Your task to perform on an android device: Show me productivity apps on the Play Store Image 0: 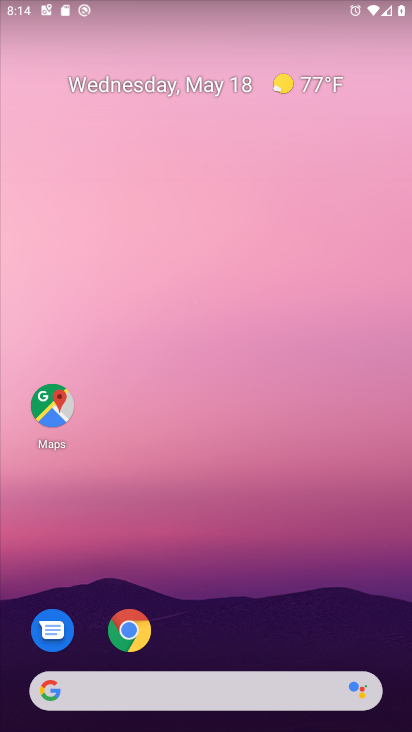
Step 0: drag from (269, 576) to (295, 200)
Your task to perform on an android device: Show me productivity apps on the Play Store Image 1: 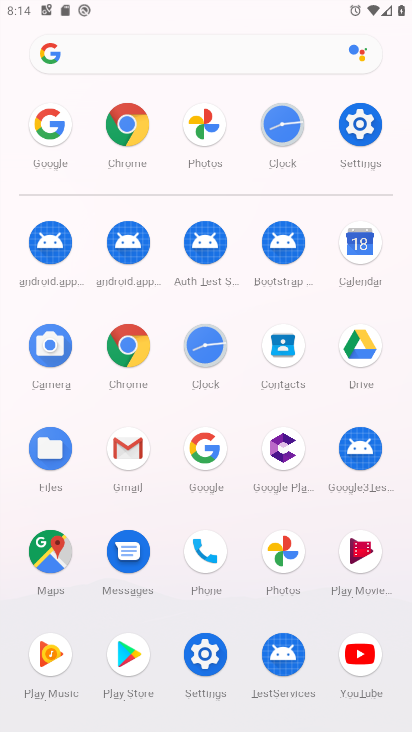
Step 1: drag from (289, 583) to (272, 343)
Your task to perform on an android device: Show me productivity apps on the Play Store Image 2: 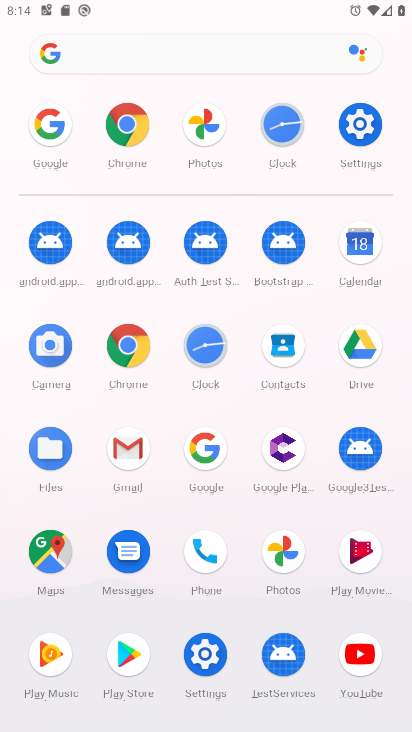
Step 2: click (127, 660)
Your task to perform on an android device: Show me productivity apps on the Play Store Image 3: 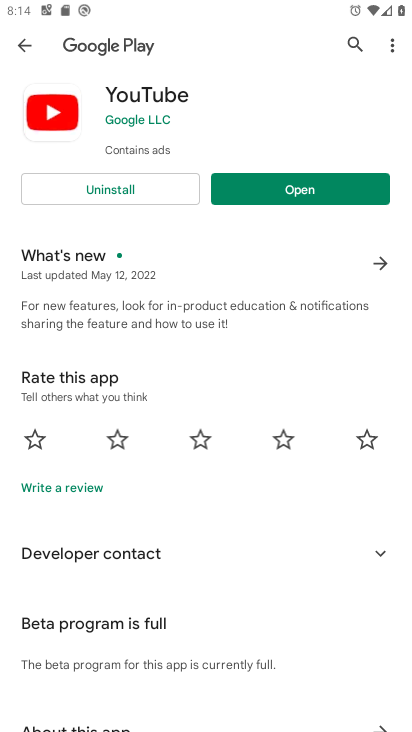
Step 3: press back button
Your task to perform on an android device: Show me productivity apps on the Play Store Image 4: 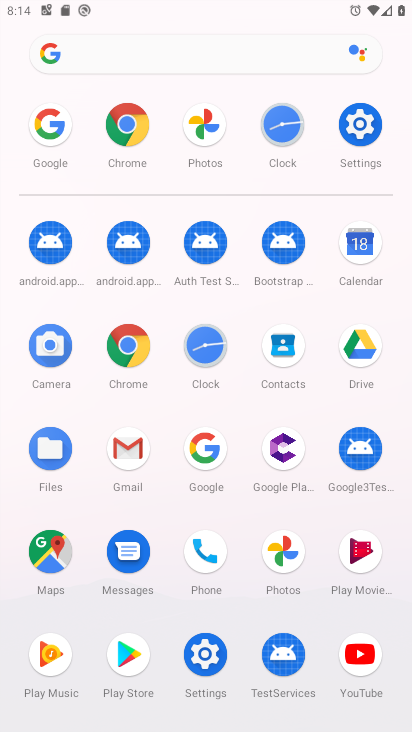
Step 4: click (140, 661)
Your task to perform on an android device: Show me productivity apps on the Play Store Image 5: 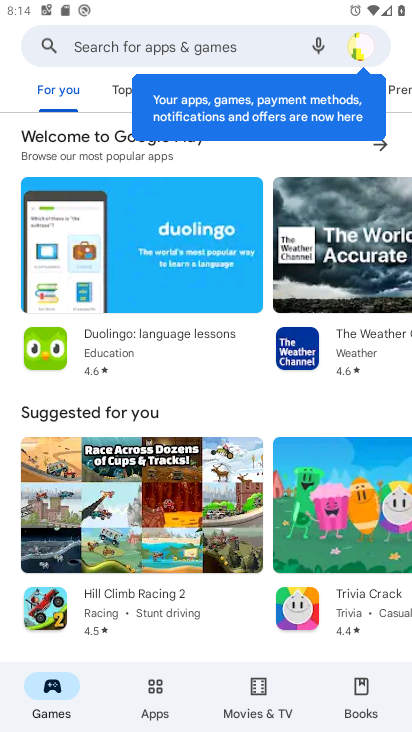
Step 5: click (162, 687)
Your task to perform on an android device: Show me productivity apps on the Play Store Image 6: 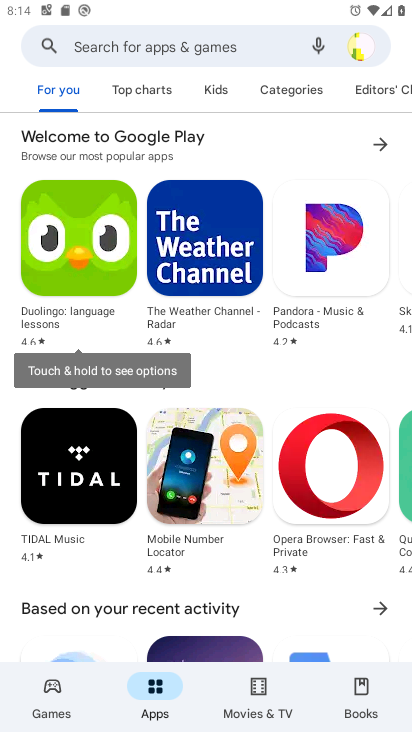
Step 6: drag from (387, 92) to (263, 90)
Your task to perform on an android device: Show me productivity apps on the Play Store Image 7: 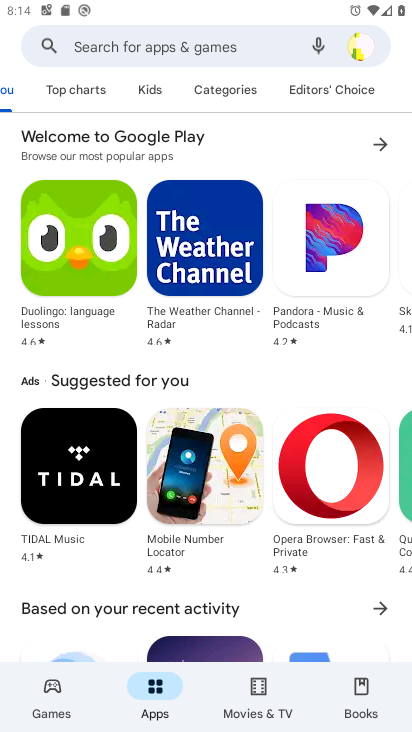
Step 7: click (211, 87)
Your task to perform on an android device: Show me productivity apps on the Play Store Image 8: 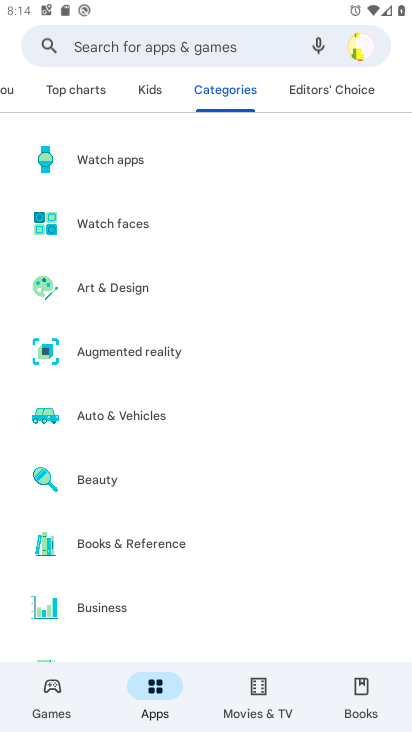
Step 8: drag from (202, 625) to (273, 140)
Your task to perform on an android device: Show me productivity apps on the Play Store Image 9: 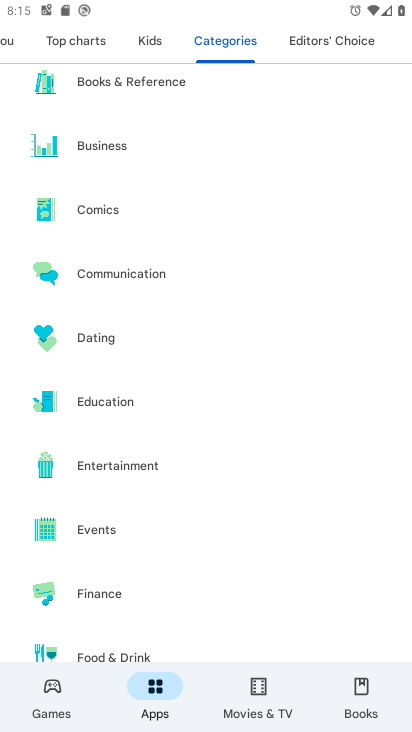
Step 9: drag from (237, 627) to (264, 133)
Your task to perform on an android device: Show me productivity apps on the Play Store Image 10: 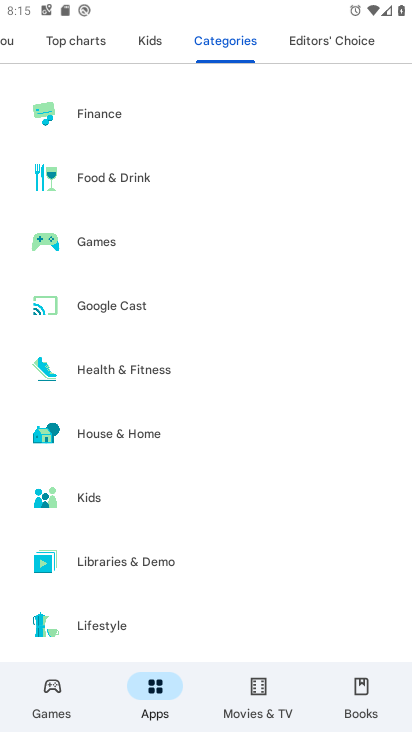
Step 10: drag from (204, 593) to (205, 159)
Your task to perform on an android device: Show me productivity apps on the Play Store Image 11: 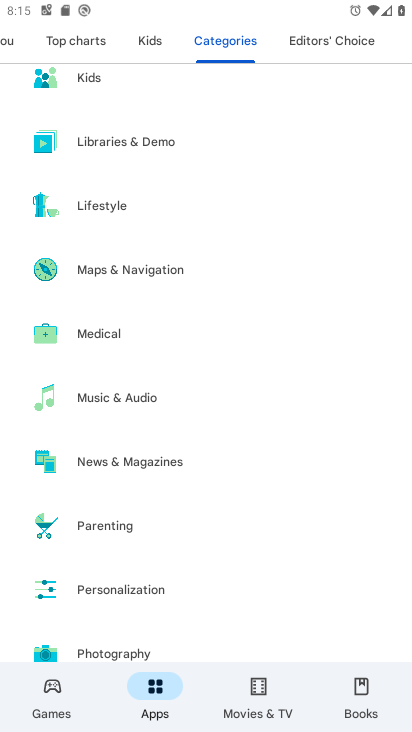
Step 11: drag from (191, 631) to (205, 467)
Your task to perform on an android device: Show me productivity apps on the Play Store Image 12: 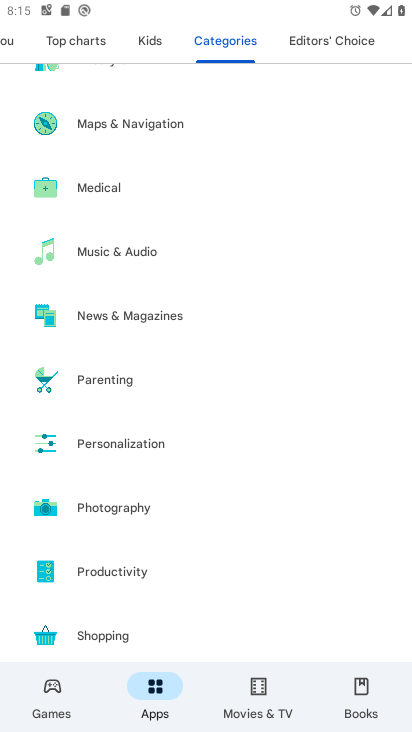
Step 12: click (126, 576)
Your task to perform on an android device: Show me productivity apps on the Play Store Image 13: 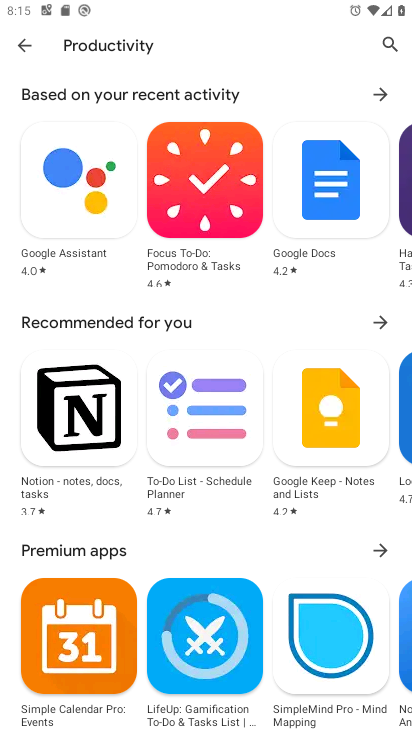
Step 13: task complete